Your task to perform on an android device: Open settings Image 0: 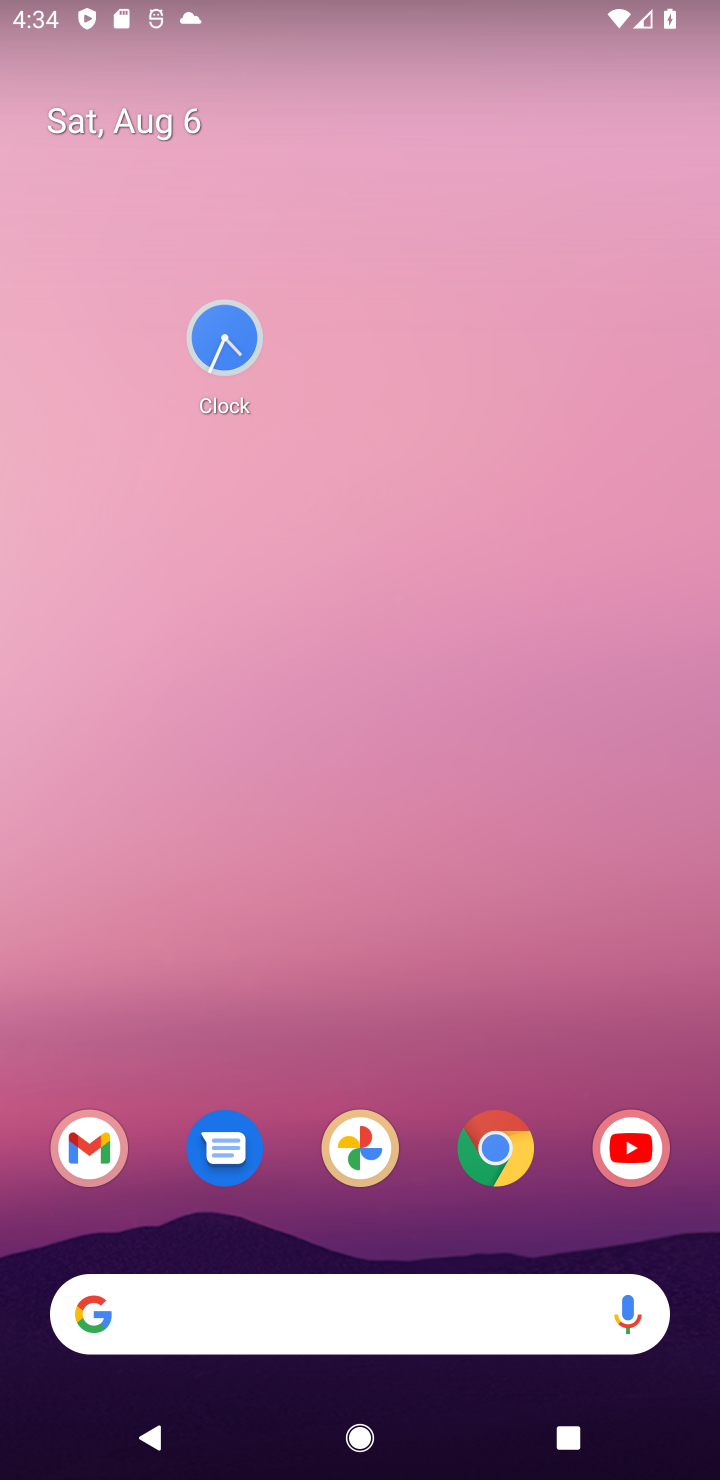
Step 0: drag from (436, 148) to (436, 78)
Your task to perform on an android device: Open settings Image 1: 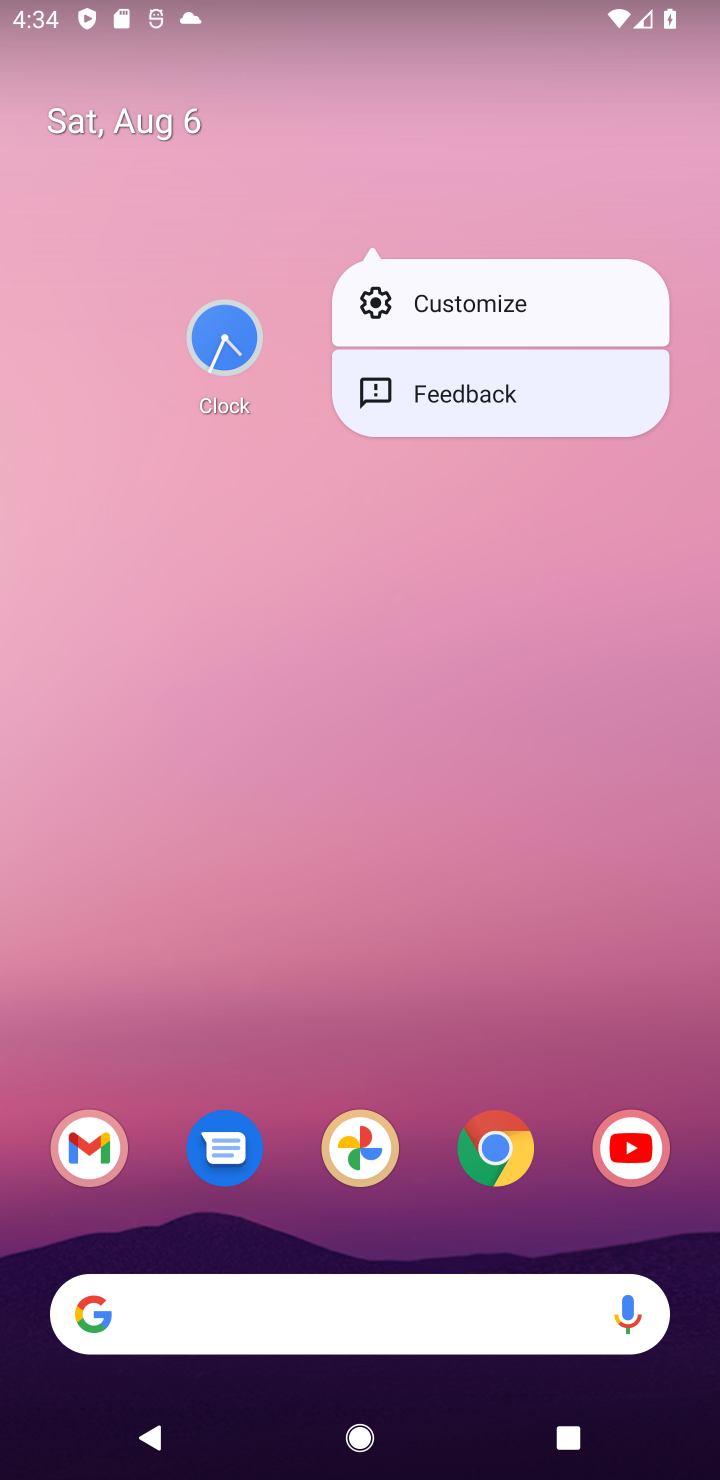
Step 1: click (419, 854)
Your task to perform on an android device: Open settings Image 2: 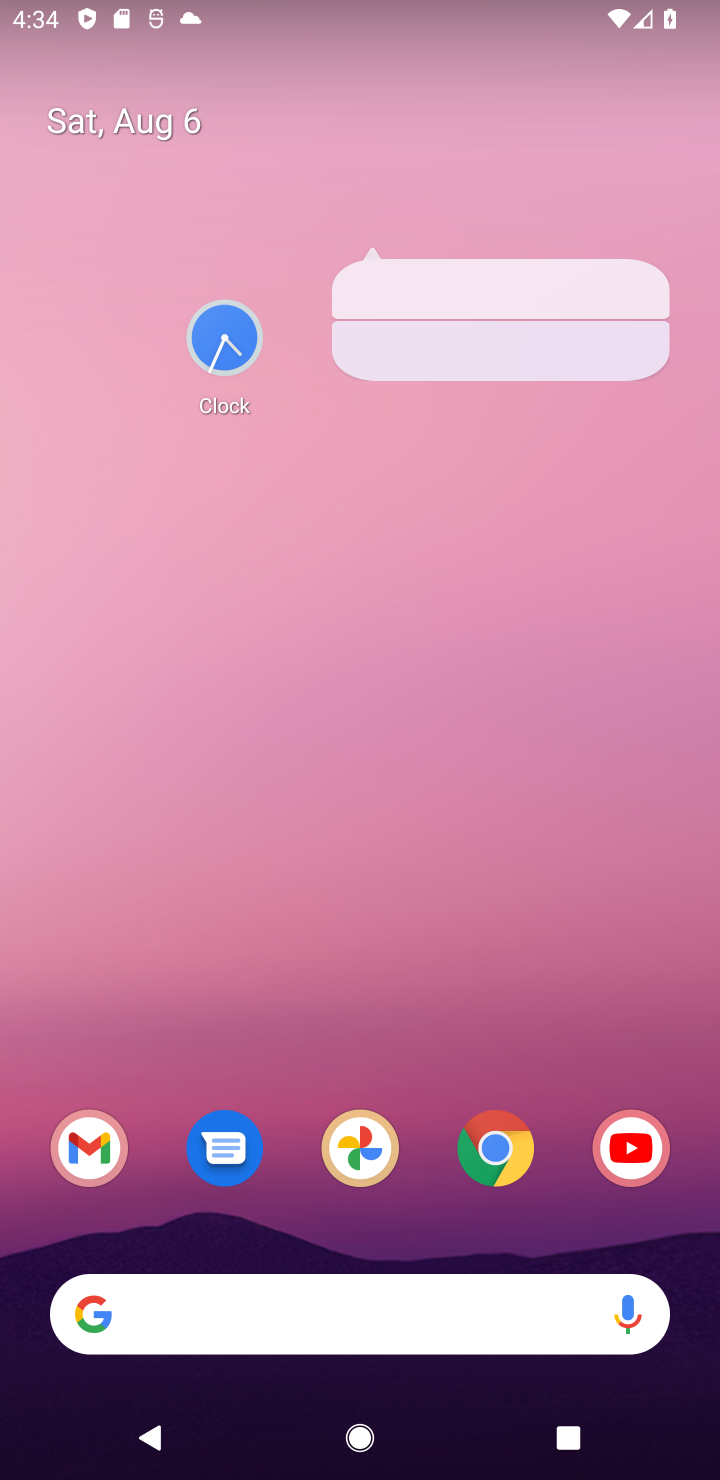
Step 2: drag from (421, 1203) to (507, 599)
Your task to perform on an android device: Open settings Image 3: 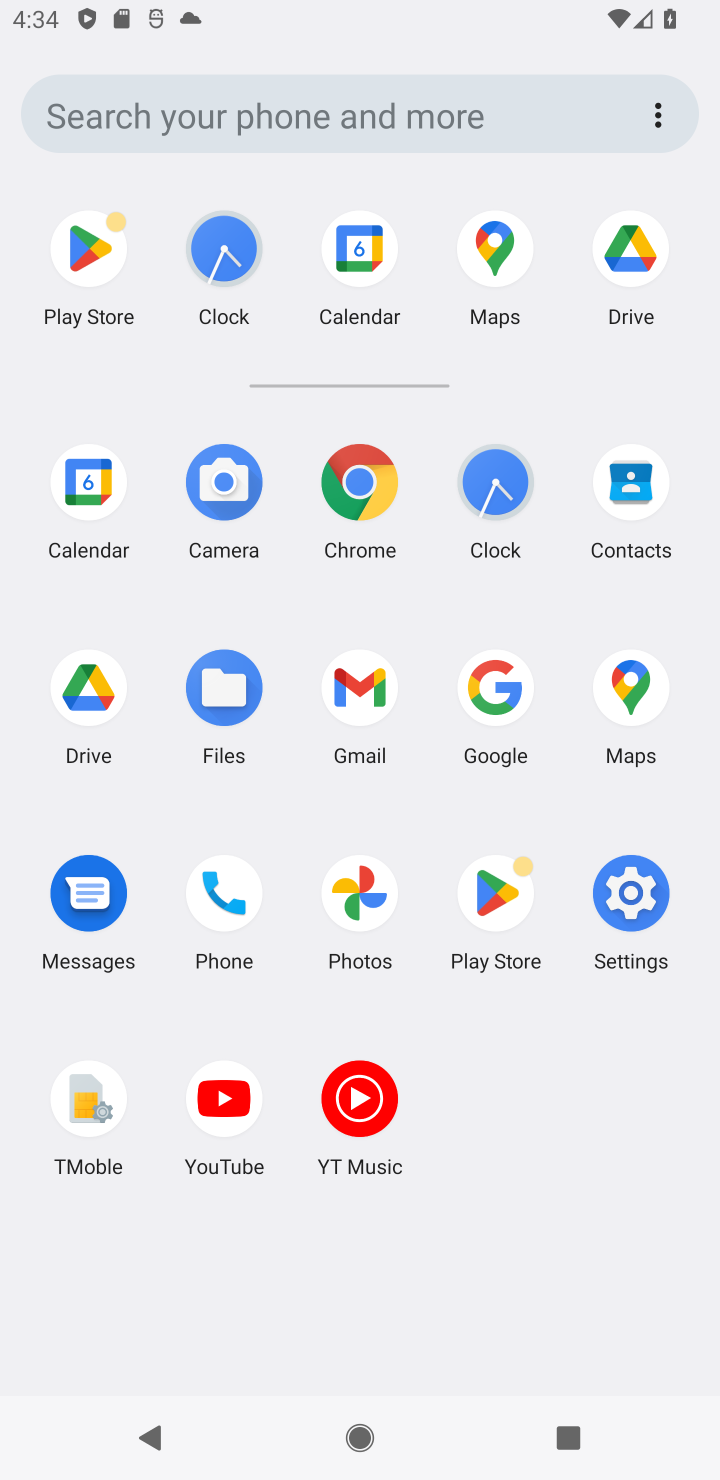
Step 3: click (649, 887)
Your task to perform on an android device: Open settings Image 4: 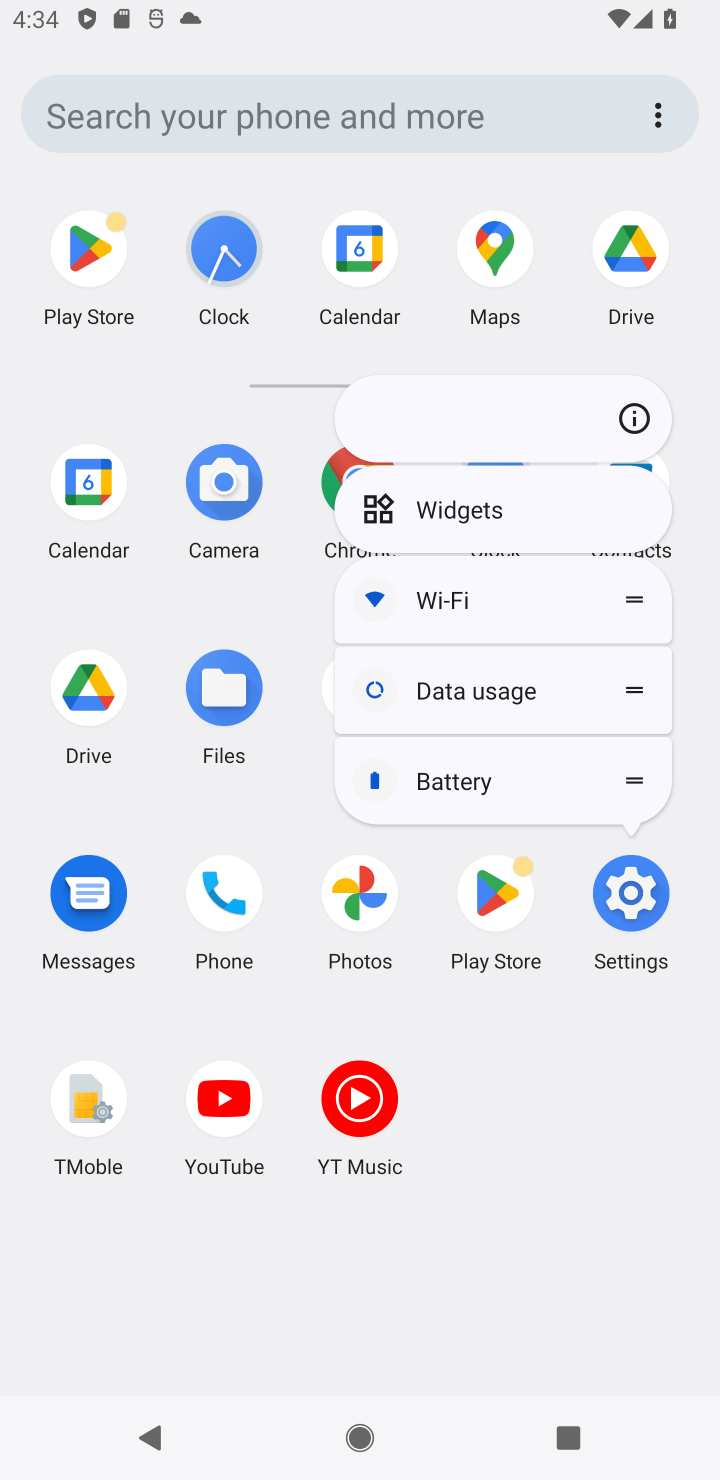
Step 4: click (626, 415)
Your task to perform on an android device: Open settings Image 5: 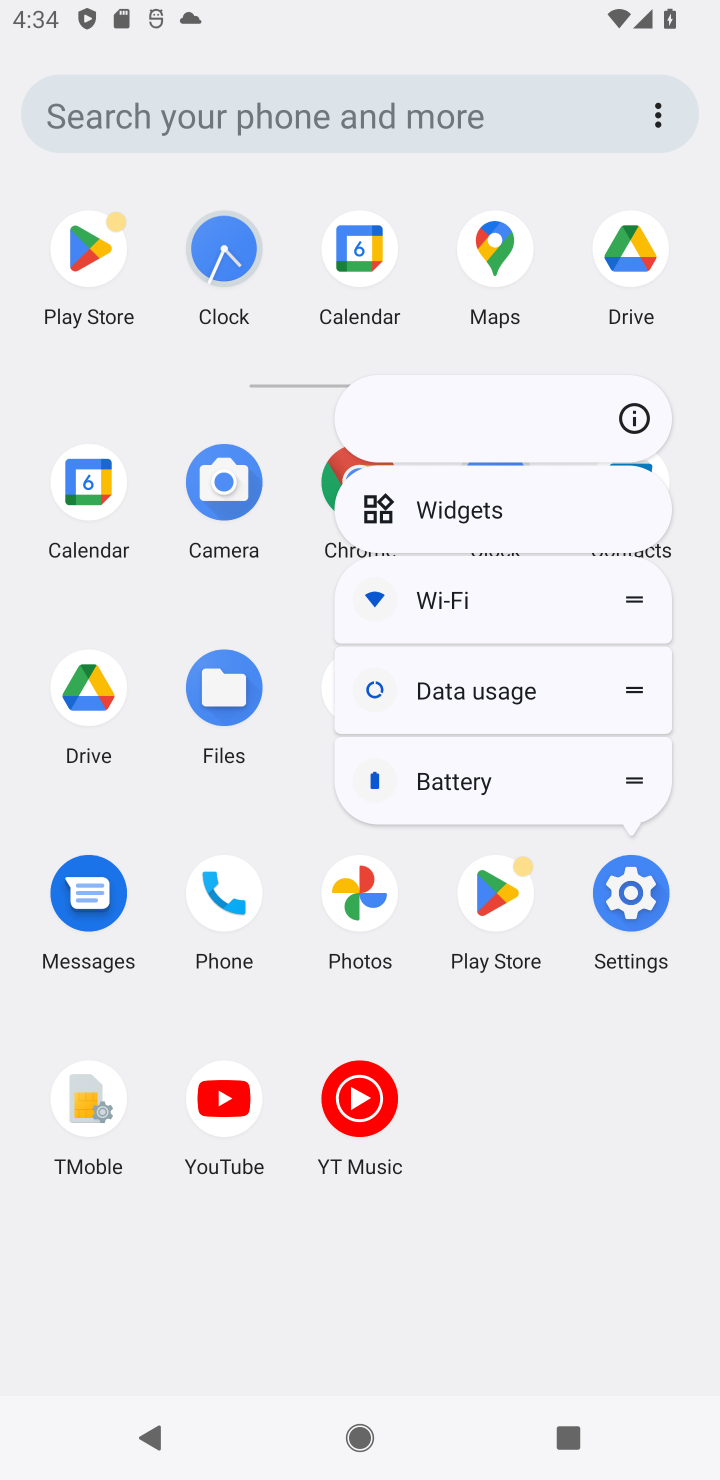
Step 5: click (627, 409)
Your task to perform on an android device: Open settings Image 6: 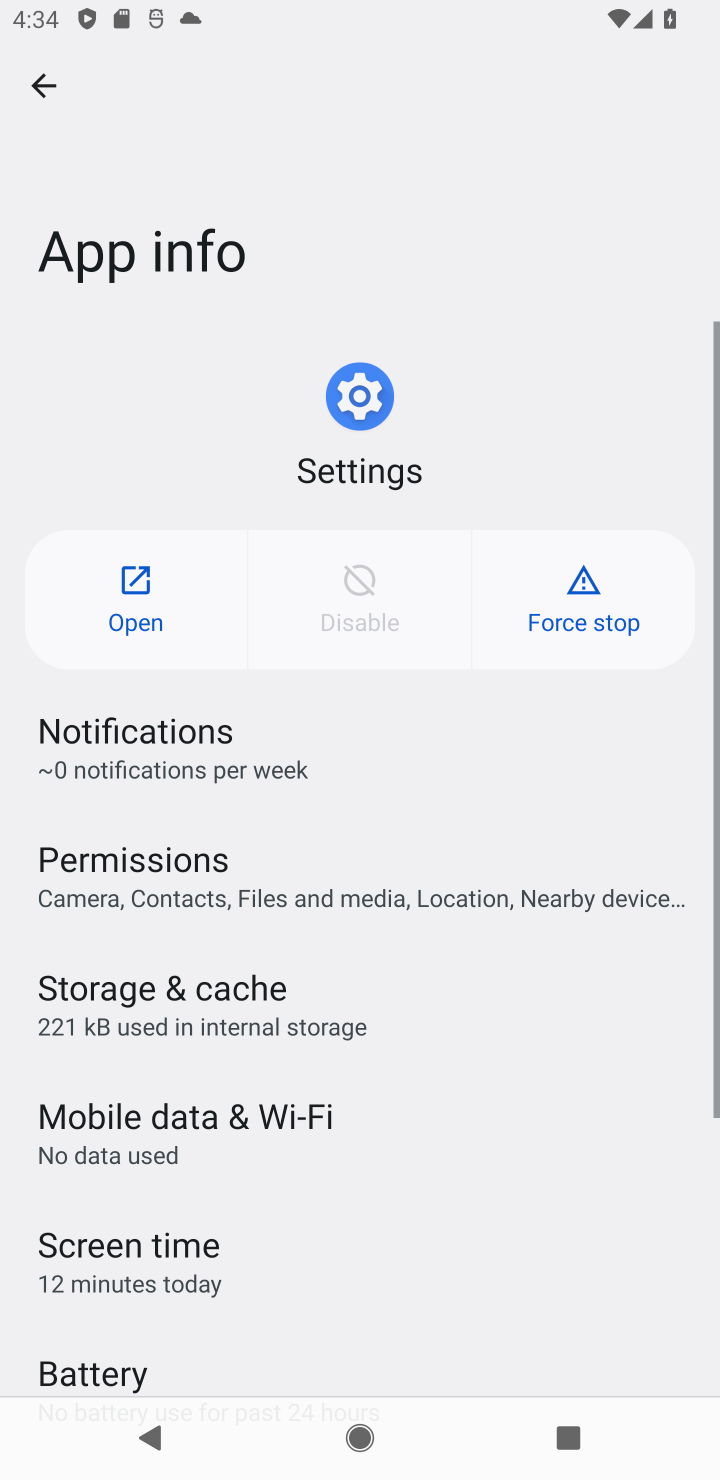
Step 6: click (127, 583)
Your task to perform on an android device: Open settings Image 7: 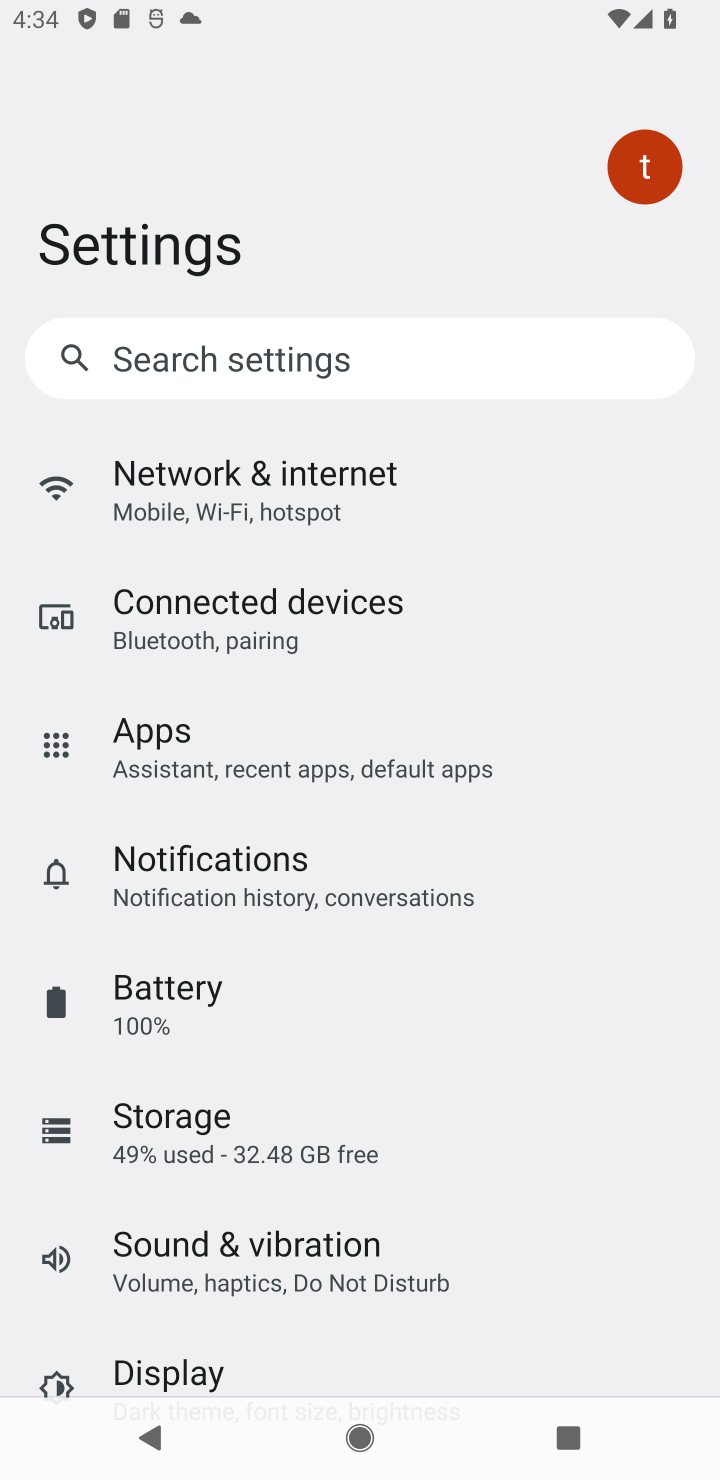
Step 7: task complete